Your task to perform on an android device: allow notifications from all sites in the chrome app Image 0: 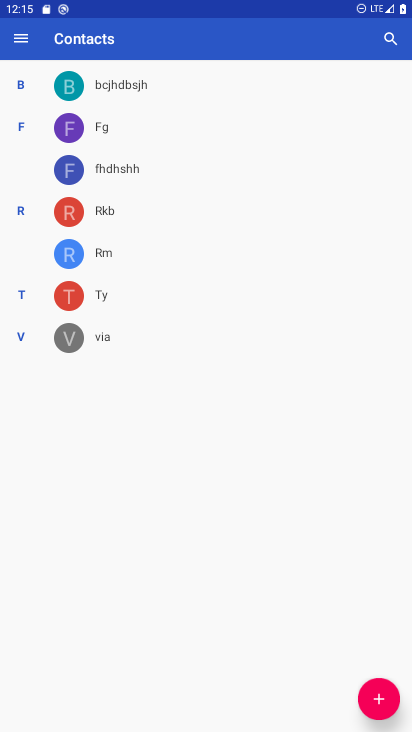
Step 0: press back button
Your task to perform on an android device: allow notifications from all sites in the chrome app Image 1: 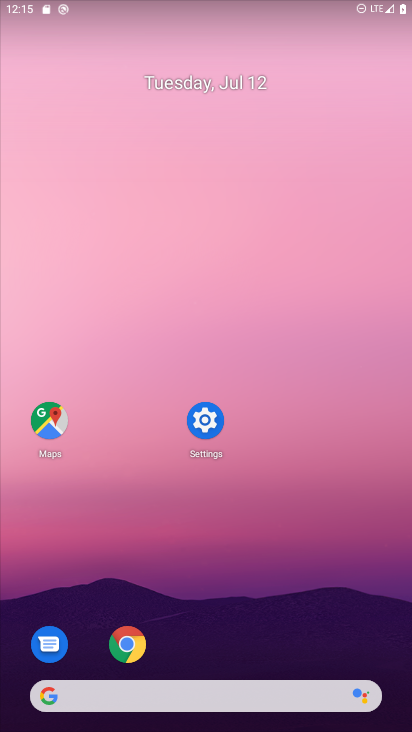
Step 1: click (115, 640)
Your task to perform on an android device: allow notifications from all sites in the chrome app Image 2: 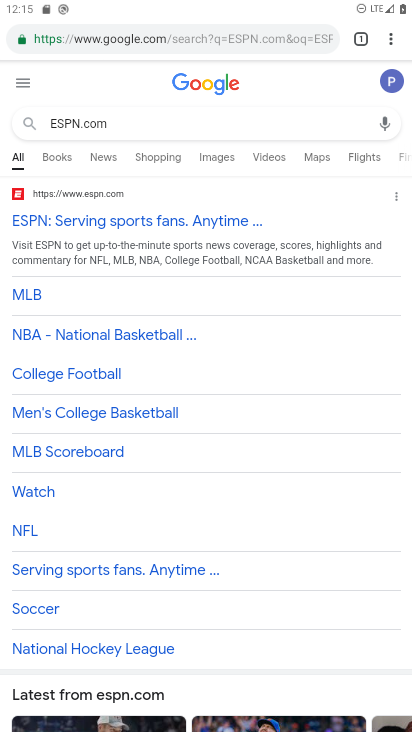
Step 2: click (393, 36)
Your task to perform on an android device: allow notifications from all sites in the chrome app Image 3: 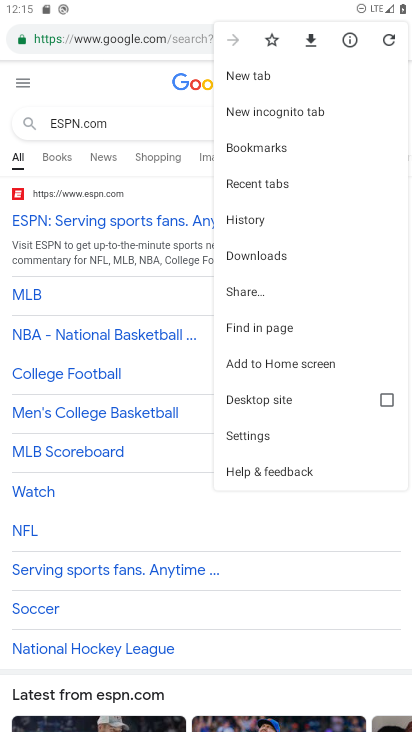
Step 3: click (248, 429)
Your task to perform on an android device: allow notifications from all sites in the chrome app Image 4: 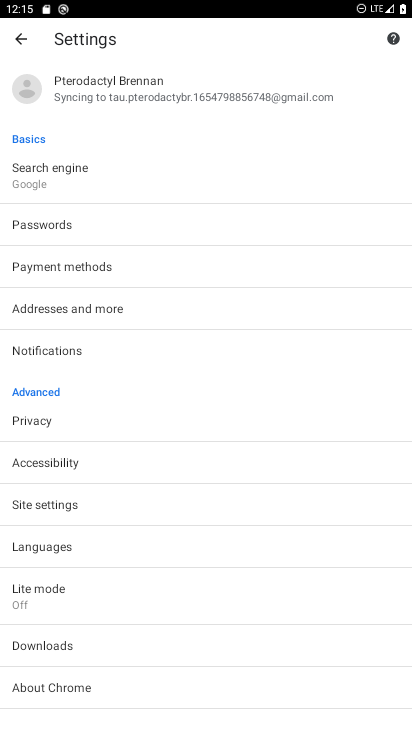
Step 4: click (54, 502)
Your task to perform on an android device: allow notifications from all sites in the chrome app Image 5: 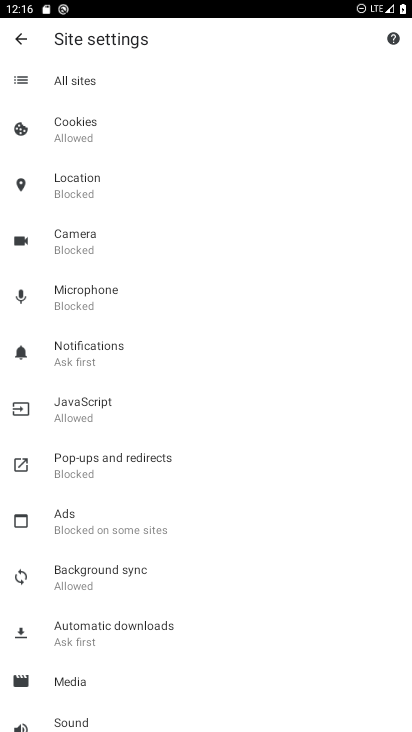
Step 5: click (69, 351)
Your task to perform on an android device: allow notifications from all sites in the chrome app Image 6: 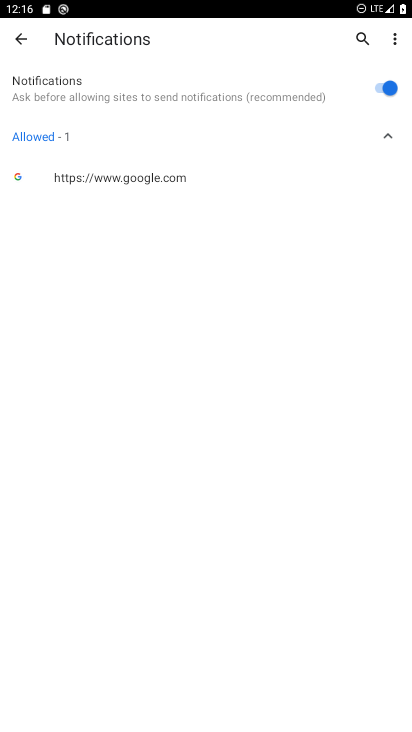
Step 6: task complete